Your task to perform on an android device: Open Reddit.com Image 0: 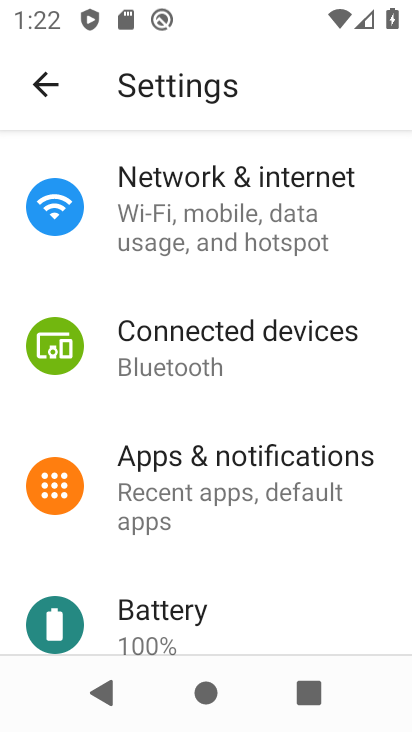
Step 0: press home button
Your task to perform on an android device: Open Reddit.com Image 1: 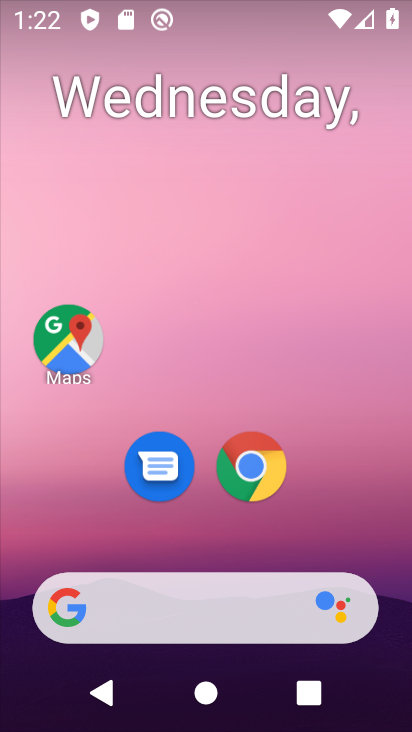
Step 1: click (256, 468)
Your task to perform on an android device: Open Reddit.com Image 2: 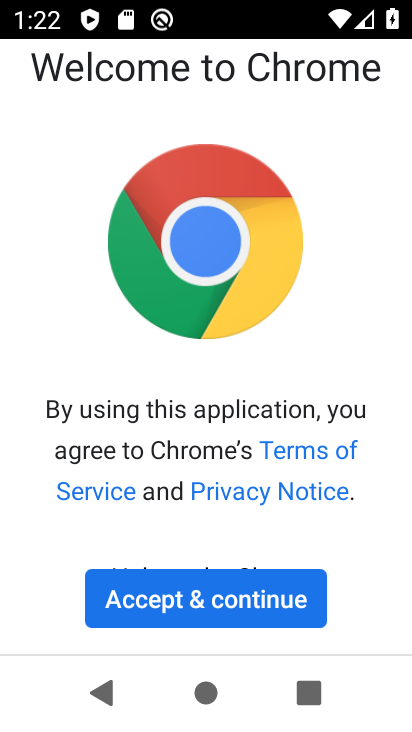
Step 2: click (206, 599)
Your task to perform on an android device: Open Reddit.com Image 3: 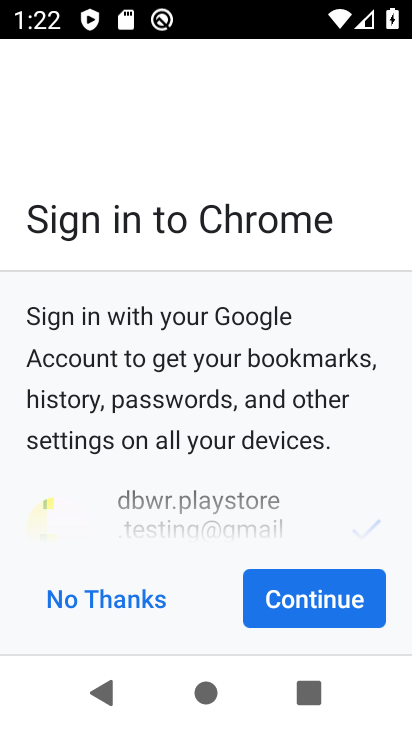
Step 3: click (348, 608)
Your task to perform on an android device: Open Reddit.com Image 4: 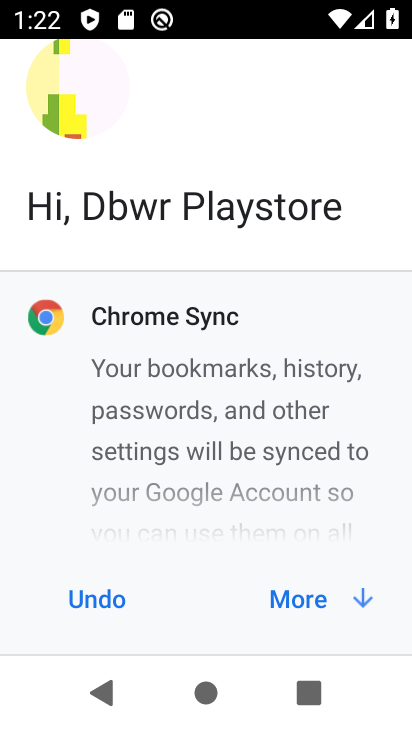
Step 4: click (306, 598)
Your task to perform on an android device: Open Reddit.com Image 5: 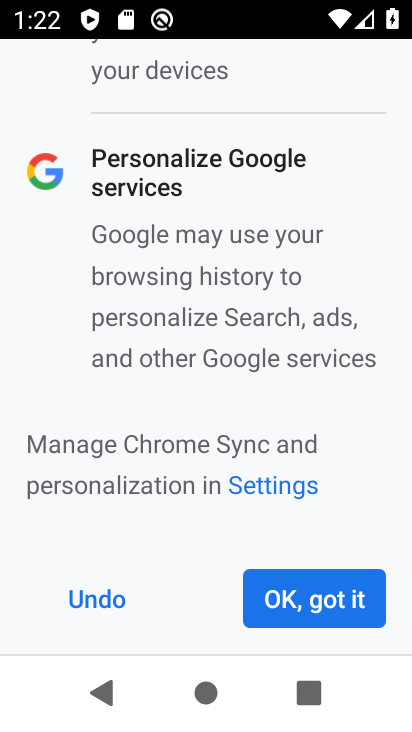
Step 5: click (333, 609)
Your task to perform on an android device: Open Reddit.com Image 6: 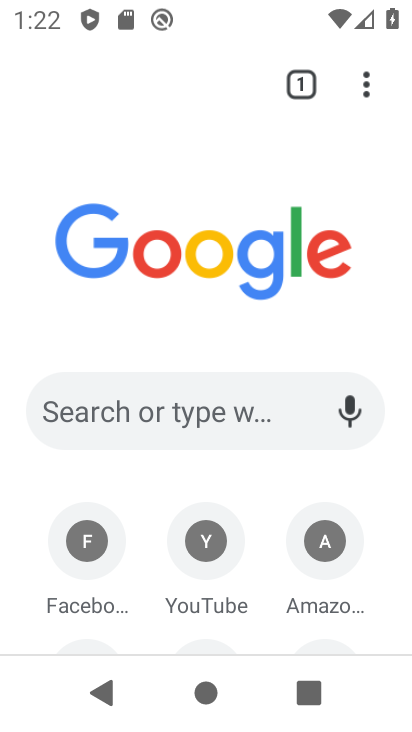
Step 6: click (178, 403)
Your task to perform on an android device: Open Reddit.com Image 7: 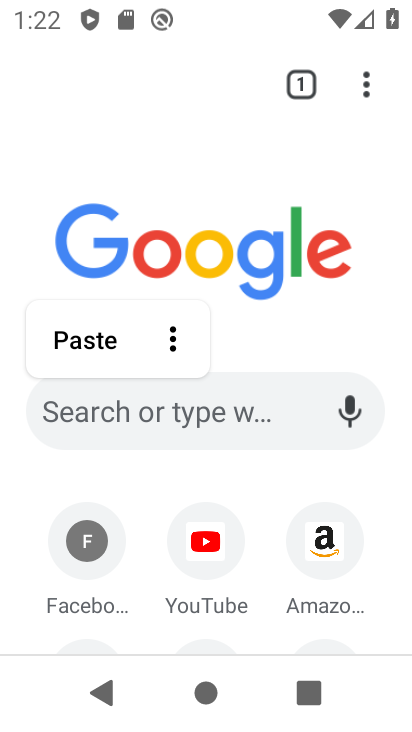
Step 7: type "Reddit.com"
Your task to perform on an android device: Open Reddit.com Image 8: 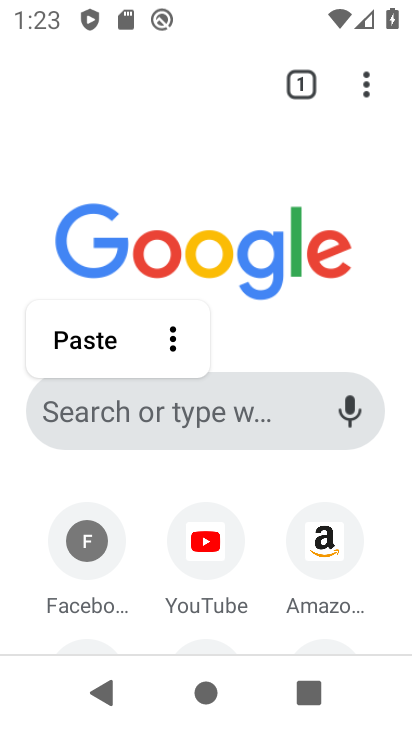
Step 8: click (147, 400)
Your task to perform on an android device: Open Reddit.com Image 9: 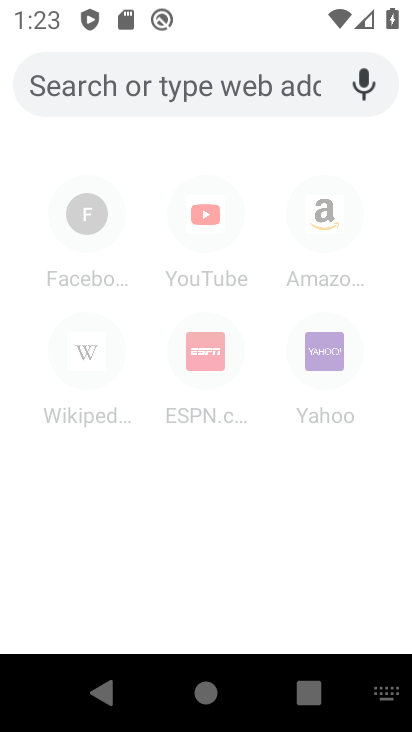
Step 9: type "reddit.com"
Your task to perform on an android device: Open Reddit.com Image 10: 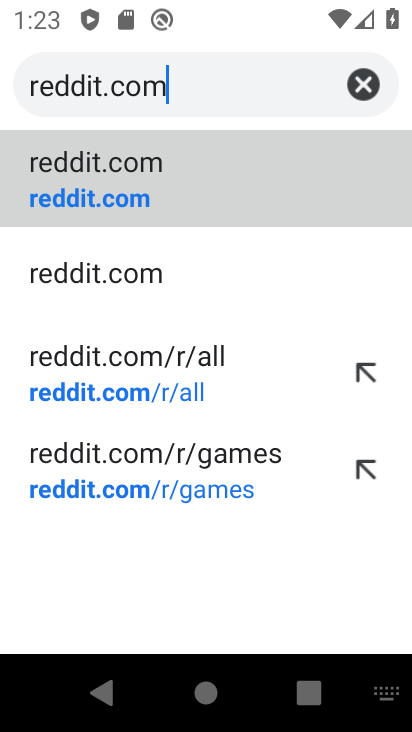
Step 10: click (200, 185)
Your task to perform on an android device: Open Reddit.com Image 11: 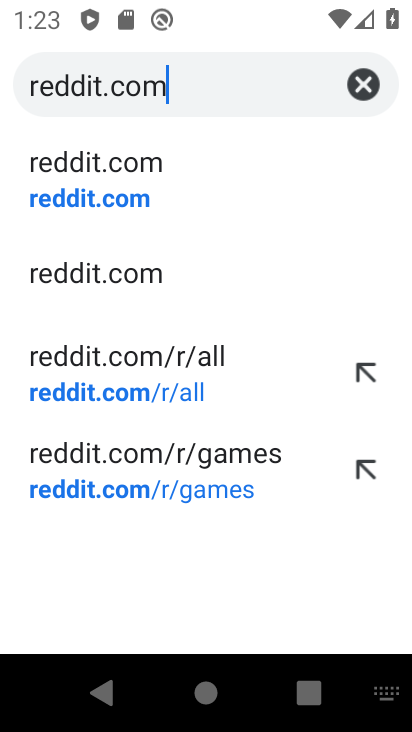
Step 11: click (103, 186)
Your task to perform on an android device: Open Reddit.com Image 12: 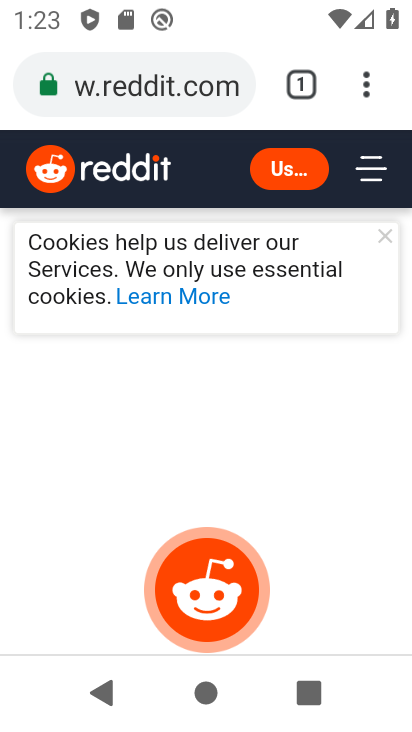
Step 12: task complete